Your task to perform on an android device: Search for custom t-shirts on Etsy. Image 0: 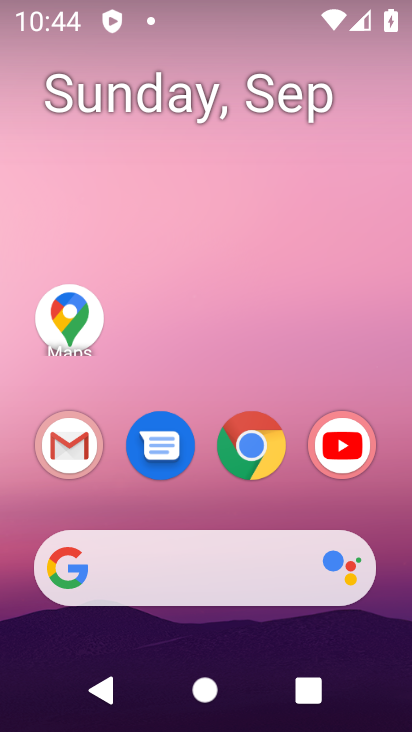
Step 0: drag from (195, 549) to (258, 84)
Your task to perform on an android device: Search for custom t-shirts on Etsy. Image 1: 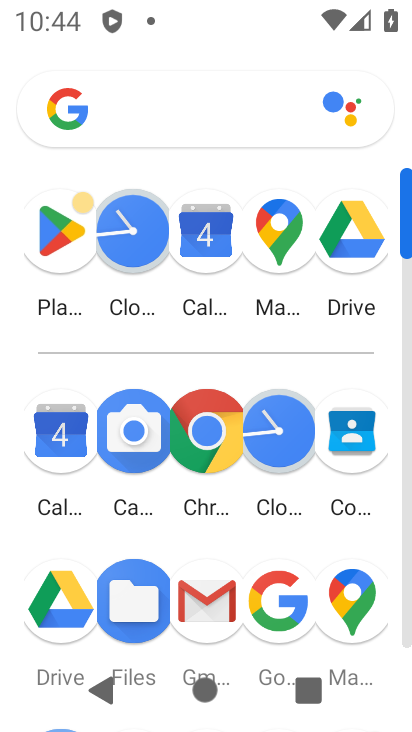
Step 1: click (219, 442)
Your task to perform on an android device: Search for custom t-shirts on Etsy. Image 2: 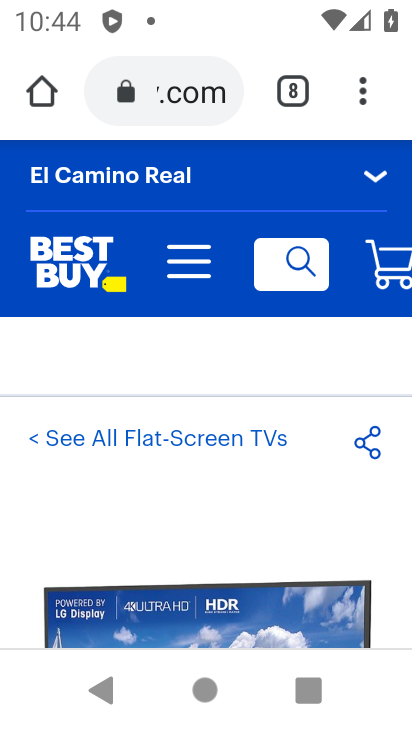
Step 2: click (177, 102)
Your task to perform on an android device: Search for custom t-shirts on Etsy. Image 3: 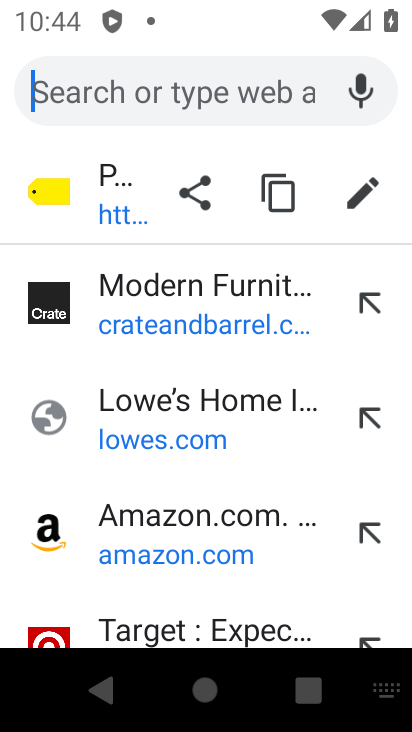
Step 3: type "Etsy"
Your task to perform on an android device: Search for custom t-shirts on Etsy. Image 4: 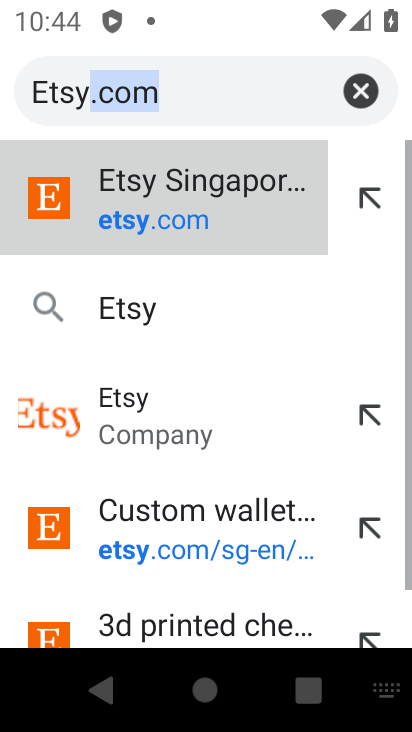
Step 4: press enter
Your task to perform on an android device: Search for custom t-shirts on Etsy. Image 5: 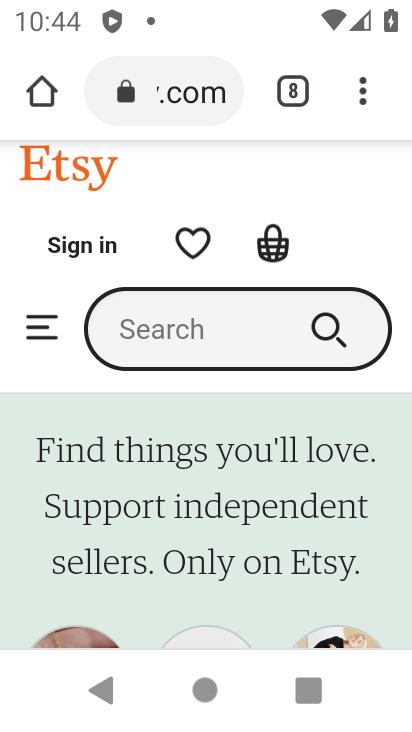
Step 5: click (156, 339)
Your task to perform on an android device: Search for custom t-shirts on Etsy. Image 6: 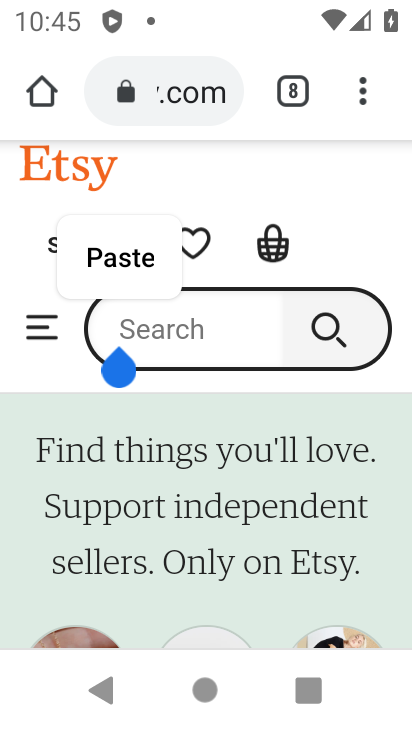
Step 6: press enter
Your task to perform on an android device: Search for custom t-shirts on Etsy. Image 7: 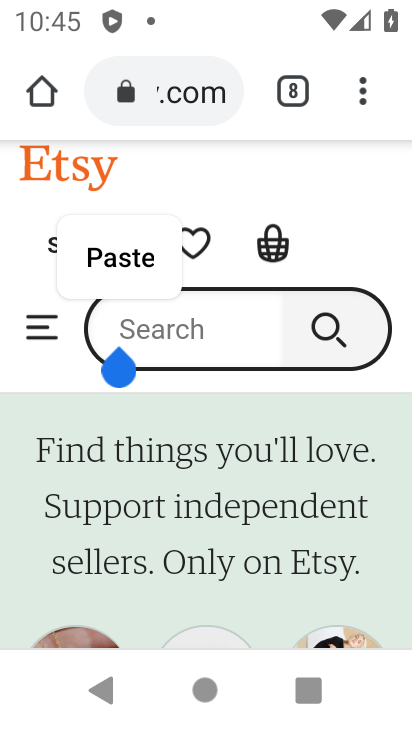
Step 7: type "custom t-shirts"
Your task to perform on an android device: Search for custom t-shirts on Etsy. Image 8: 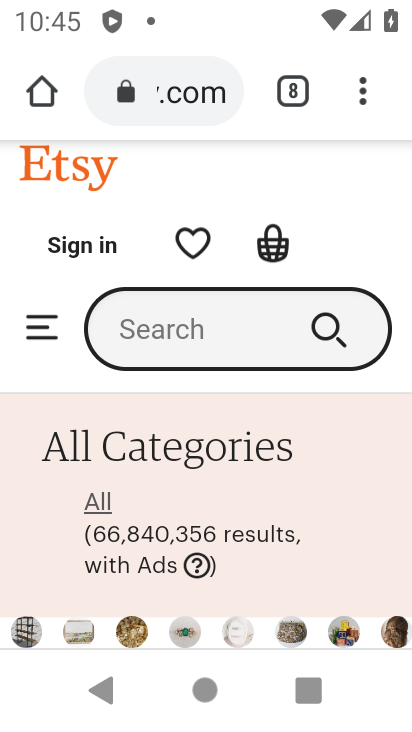
Step 8: drag from (205, 549) to (248, 9)
Your task to perform on an android device: Search for custom t-shirts on Etsy. Image 9: 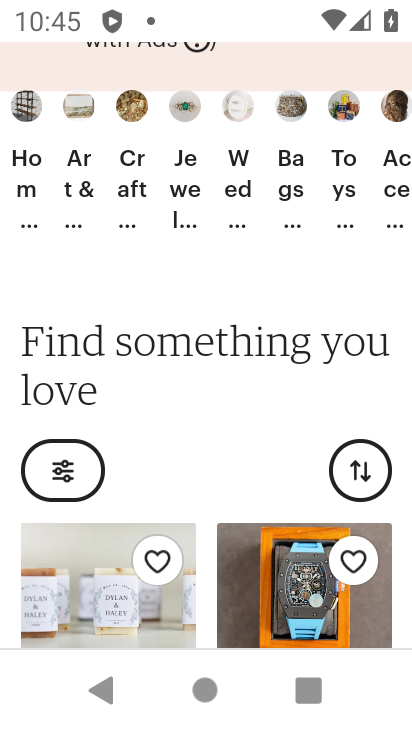
Step 9: drag from (217, 466) to (189, 114)
Your task to perform on an android device: Search for custom t-shirts on Etsy. Image 10: 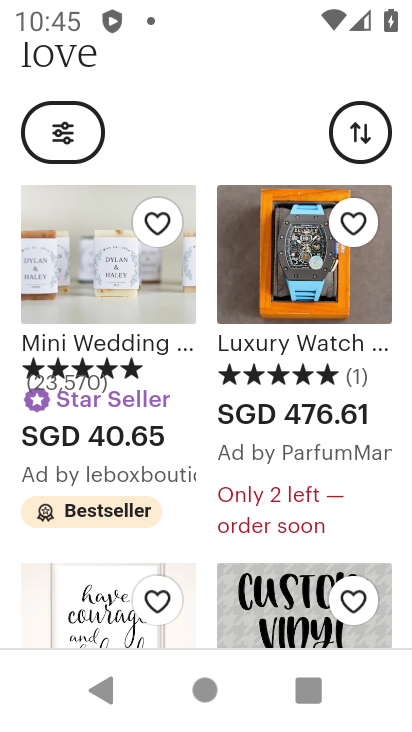
Step 10: click (270, 98)
Your task to perform on an android device: Search for custom t-shirts on Etsy. Image 11: 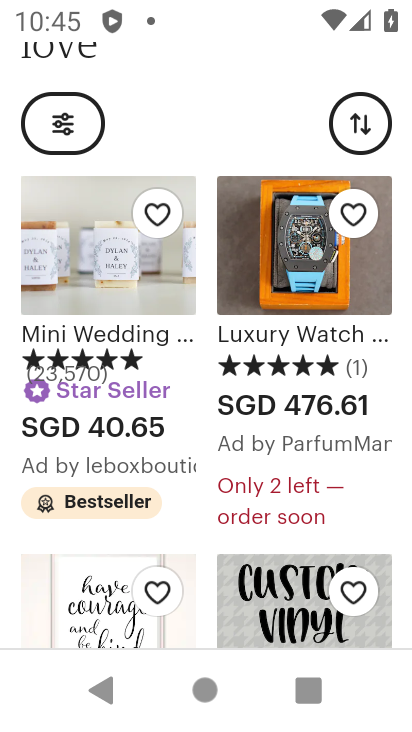
Step 11: click (261, 194)
Your task to perform on an android device: Search for custom t-shirts on Etsy. Image 12: 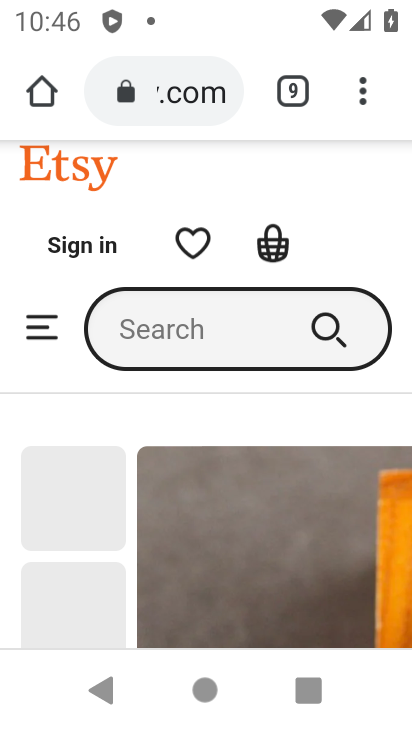
Step 12: task complete